Your task to perform on an android device: Open internet settings Image 0: 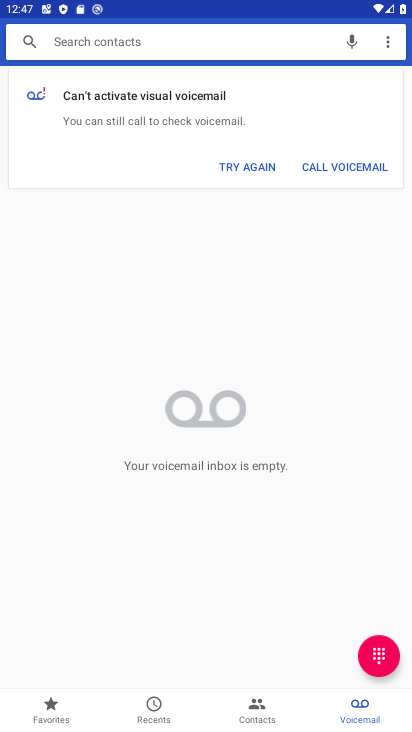
Step 0: press home button
Your task to perform on an android device: Open internet settings Image 1: 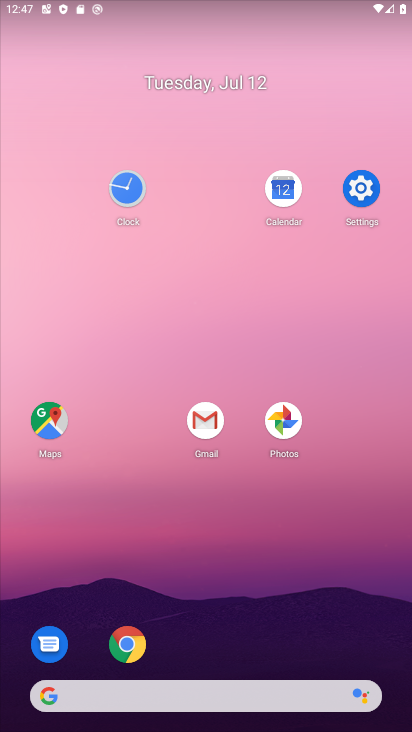
Step 1: click (370, 182)
Your task to perform on an android device: Open internet settings Image 2: 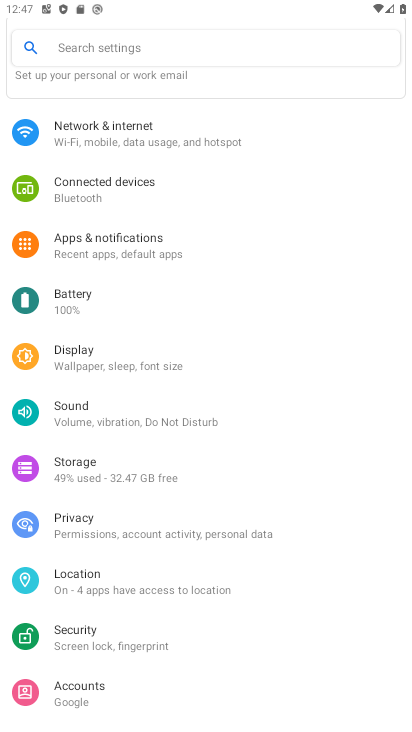
Step 2: click (202, 134)
Your task to perform on an android device: Open internet settings Image 3: 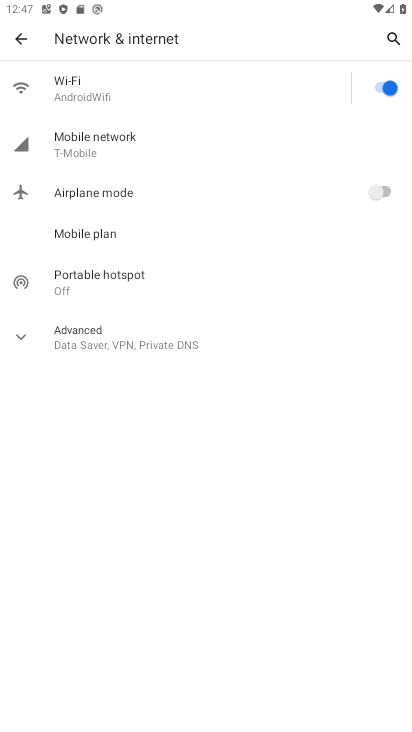
Step 3: click (108, 113)
Your task to perform on an android device: Open internet settings Image 4: 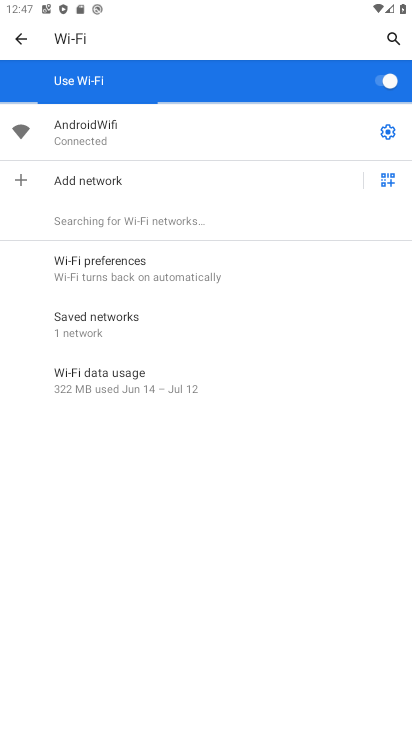
Step 4: task complete